Your task to perform on an android device: Search for sushi restaurants on Maps Image 0: 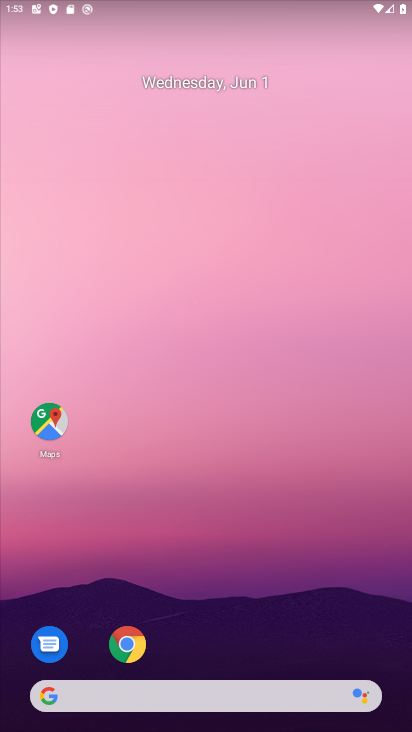
Step 0: click (49, 418)
Your task to perform on an android device: Search for sushi restaurants on Maps Image 1: 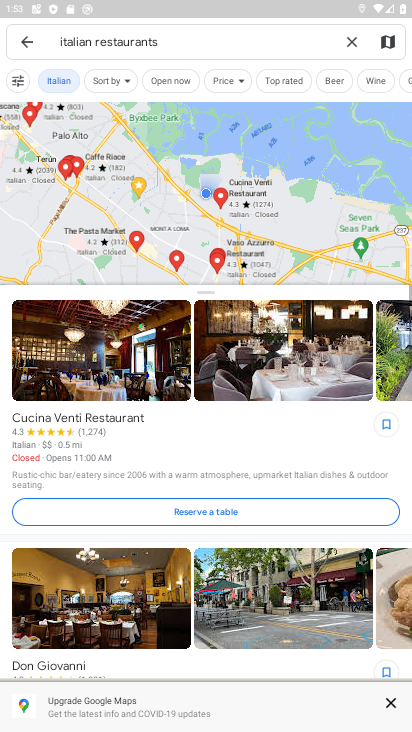
Step 1: click (357, 46)
Your task to perform on an android device: Search for sushi restaurants on Maps Image 2: 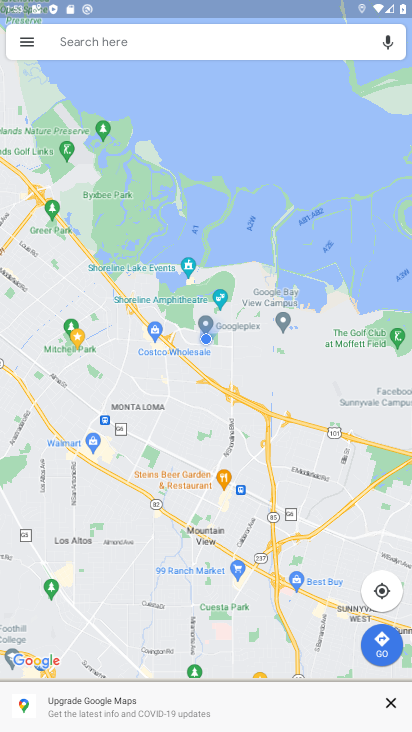
Step 2: type "sushi restaurants"
Your task to perform on an android device: Search for sushi restaurants on Maps Image 3: 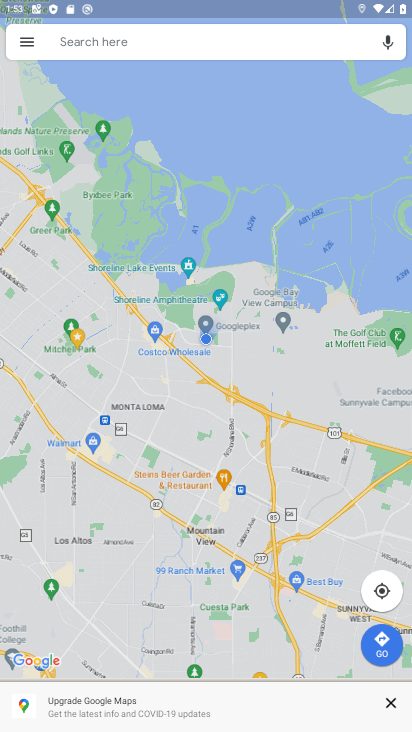
Step 3: click (99, 45)
Your task to perform on an android device: Search for sushi restaurants on Maps Image 4: 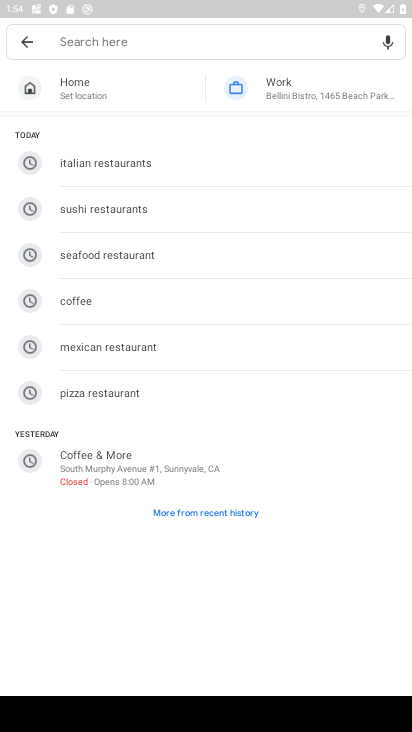
Step 4: type "sushi restaurants"
Your task to perform on an android device: Search for sushi restaurants on Maps Image 5: 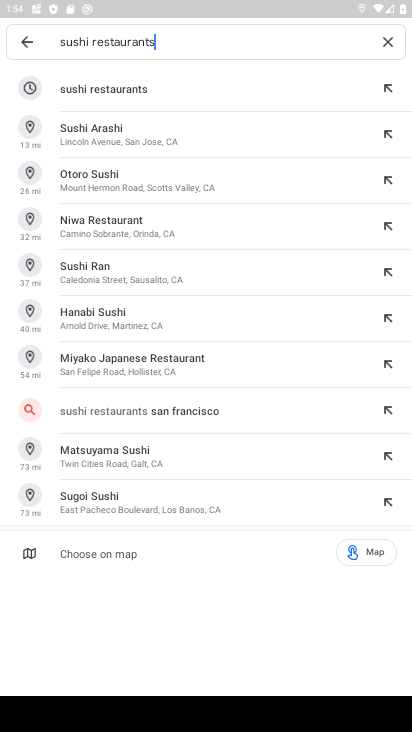
Step 5: click (86, 98)
Your task to perform on an android device: Search for sushi restaurants on Maps Image 6: 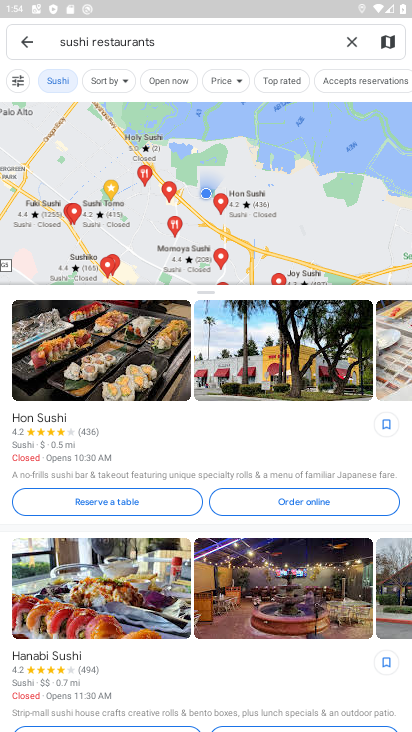
Step 6: task complete